Your task to perform on an android device: Go to battery settings Image 0: 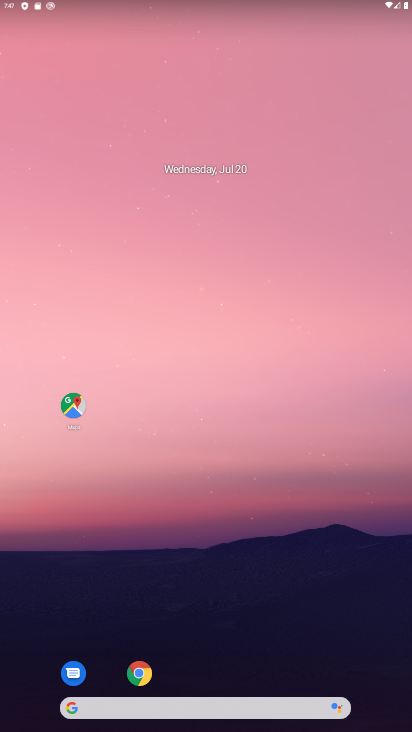
Step 0: drag from (182, 604) to (182, 282)
Your task to perform on an android device: Go to battery settings Image 1: 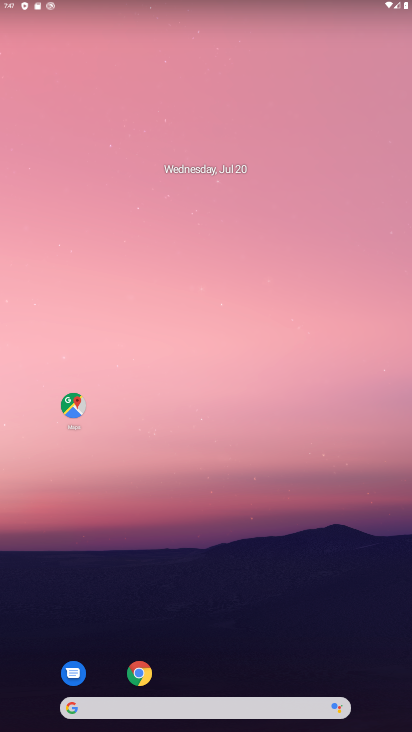
Step 1: drag from (174, 683) to (288, 148)
Your task to perform on an android device: Go to battery settings Image 2: 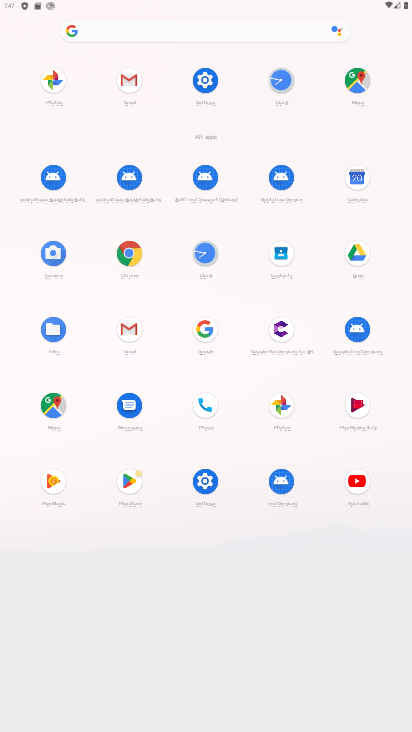
Step 2: click (204, 479)
Your task to perform on an android device: Go to battery settings Image 3: 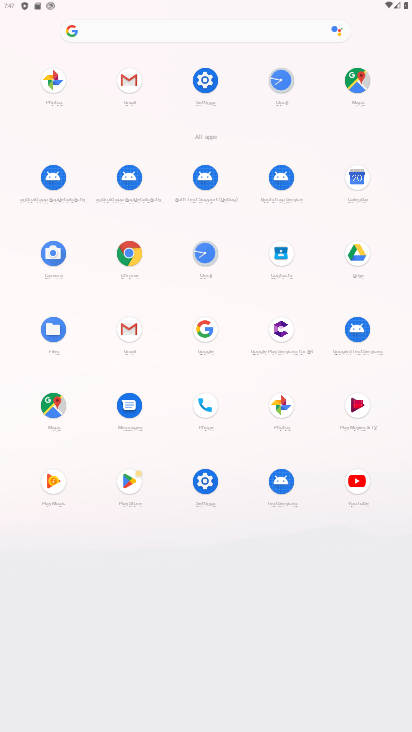
Step 3: click (203, 479)
Your task to perform on an android device: Go to battery settings Image 4: 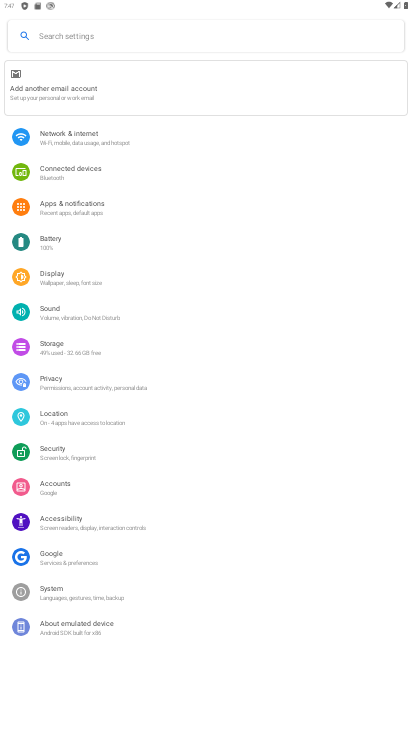
Step 4: click (73, 241)
Your task to perform on an android device: Go to battery settings Image 5: 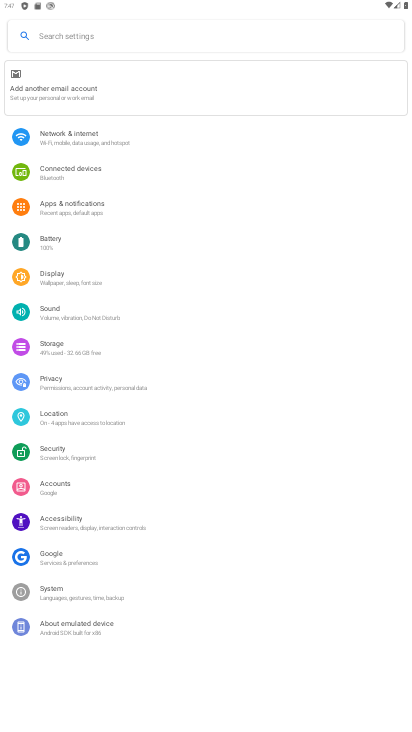
Step 5: click (73, 241)
Your task to perform on an android device: Go to battery settings Image 6: 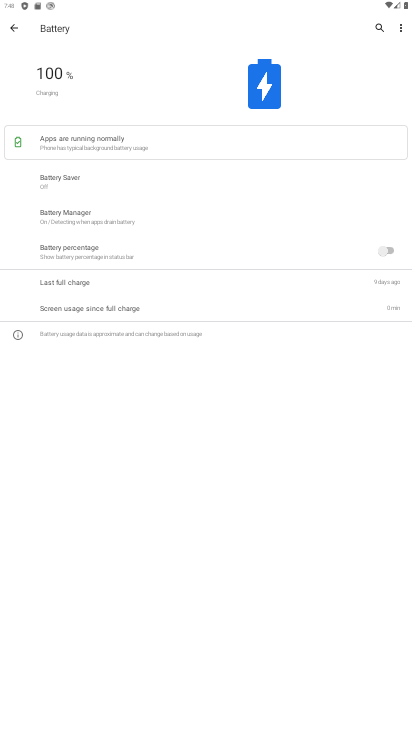
Step 6: task complete